Your task to perform on an android device: toggle wifi Image 0: 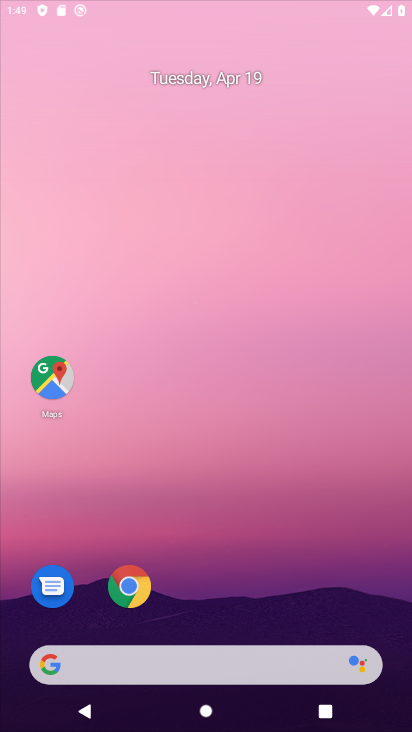
Step 0: click (228, 47)
Your task to perform on an android device: toggle wifi Image 1: 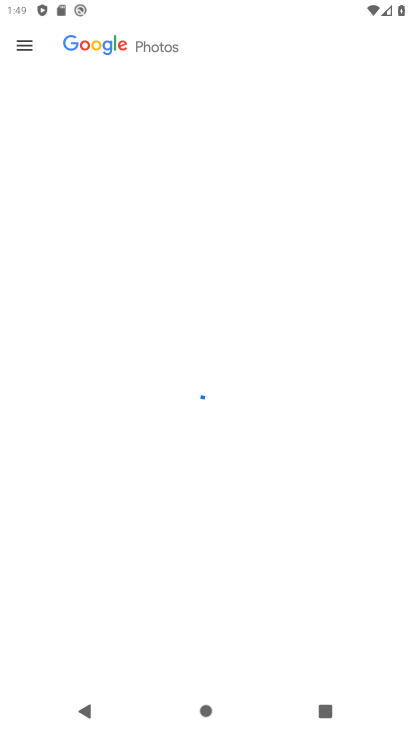
Step 1: press home button
Your task to perform on an android device: toggle wifi Image 2: 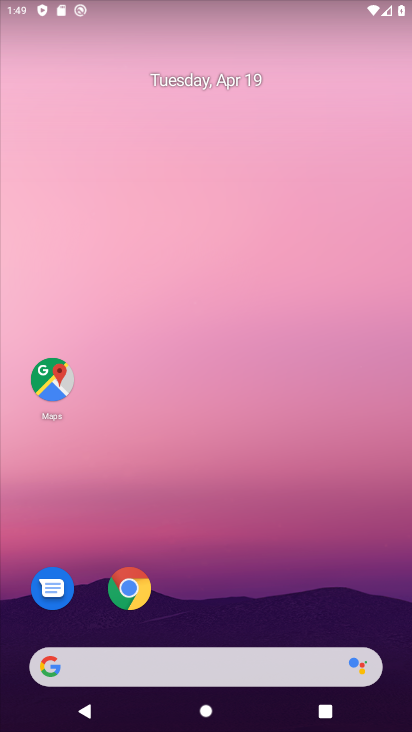
Step 2: drag from (289, 540) to (289, 272)
Your task to perform on an android device: toggle wifi Image 3: 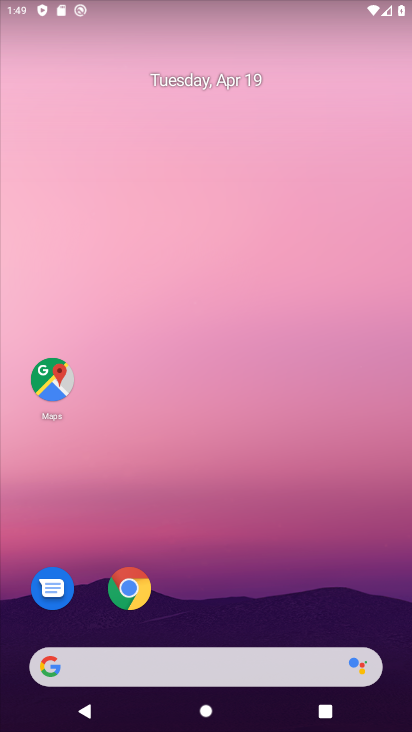
Step 3: drag from (345, 512) to (353, 91)
Your task to perform on an android device: toggle wifi Image 4: 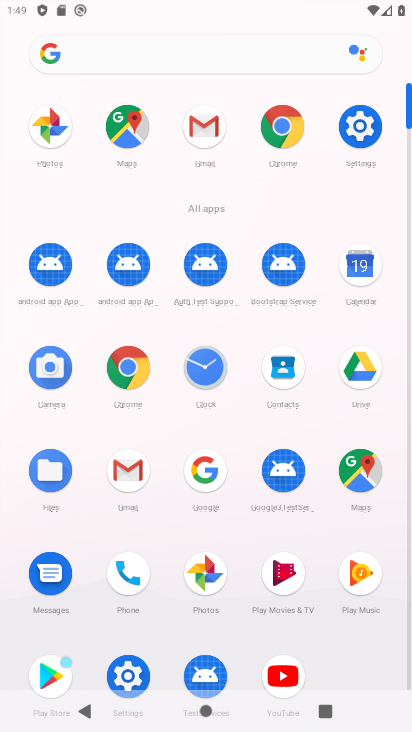
Step 4: click (355, 143)
Your task to perform on an android device: toggle wifi Image 5: 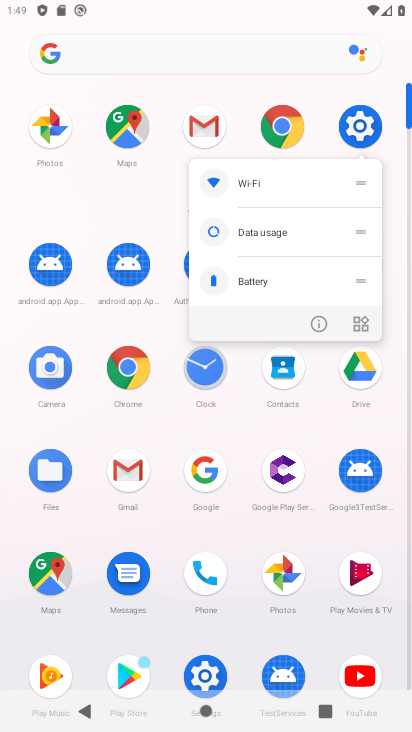
Step 5: click (355, 143)
Your task to perform on an android device: toggle wifi Image 6: 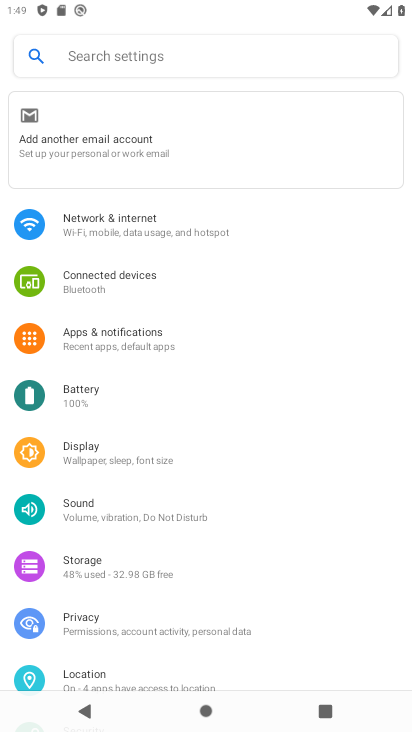
Step 6: click (133, 231)
Your task to perform on an android device: toggle wifi Image 7: 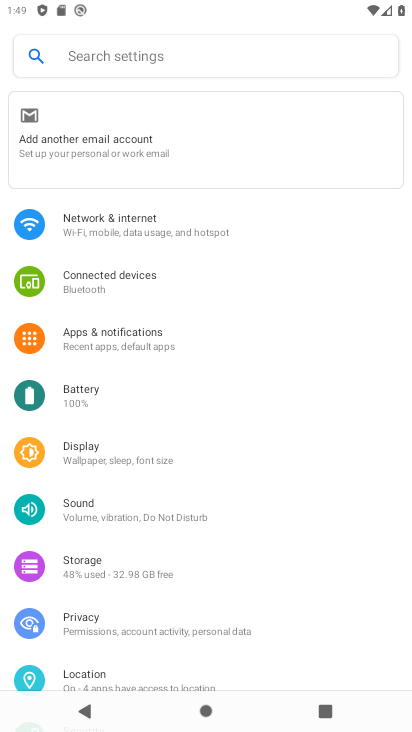
Step 7: click (132, 234)
Your task to perform on an android device: toggle wifi Image 8: 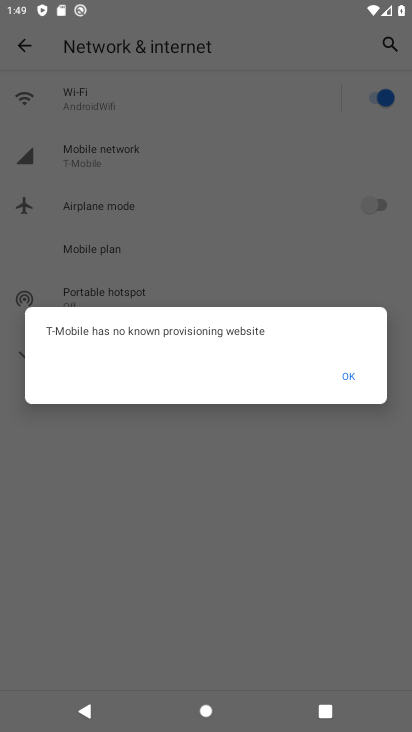
Step 8: press home button
Your task to perform on an android device: toggle wifi Image 9: 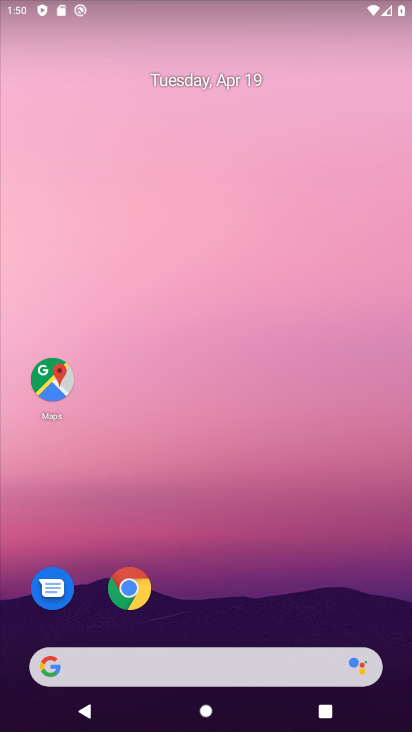
Step 9: drag from (240, 601) to (269, 152)
Your task to perform on an android device: toggle wifi Image 10: 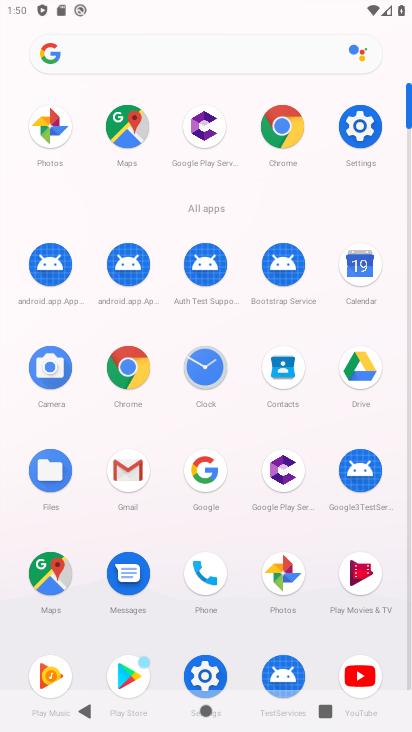
Step 10: click (366, 138)
Your task to perform on an android device: toggle wifi Image 11: 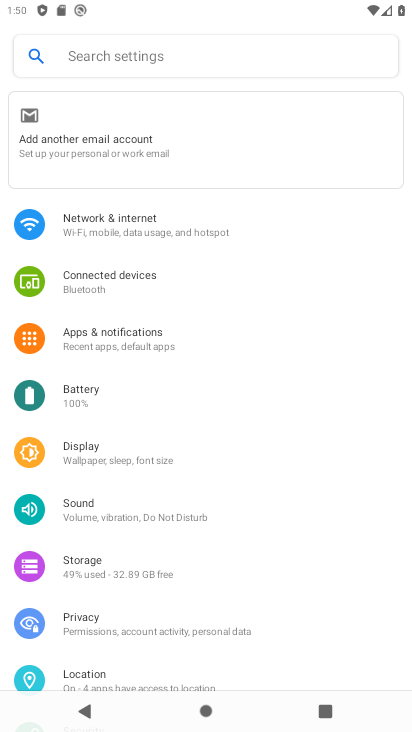
Step 11: click (154, 222)
Your task to perform on an android device: toggle wifi Image 12: 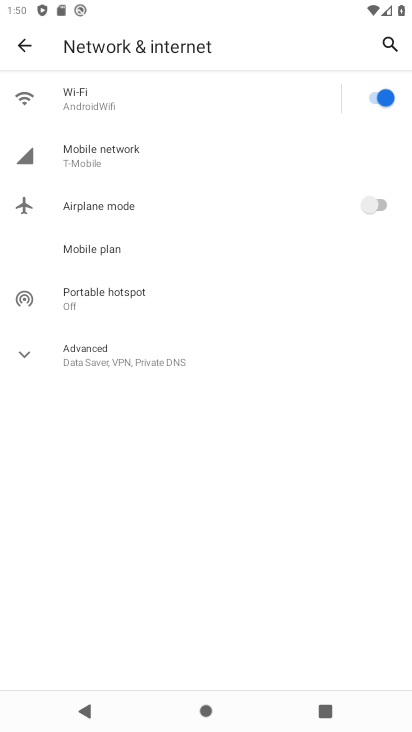
Step 12: click (375, 95)
Your task to perform on an android device: toggle wifi Image 13: 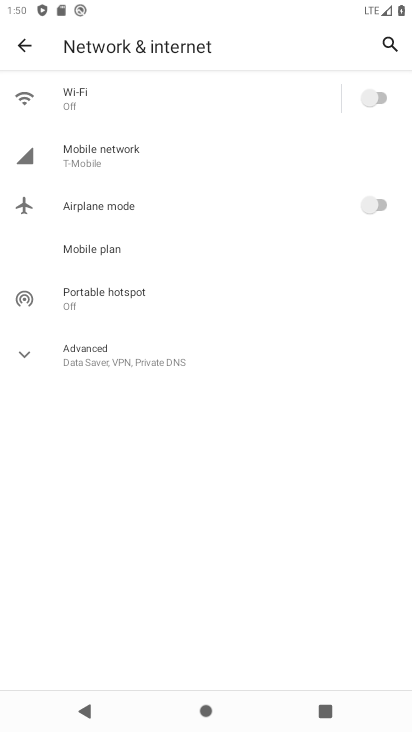
Step 13: task complete